Your task to perform on an android device: turn off javascript in the chrome app Image 0: 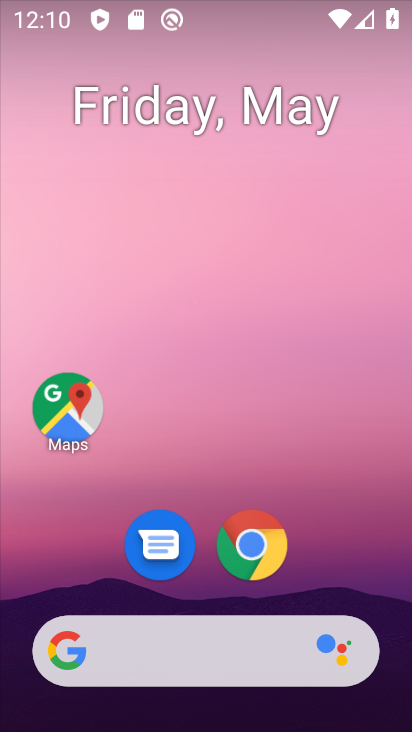
Step 0: click (255, 549)
Your task to perform on an android device: turn off javascript in the chrome app Image 1: 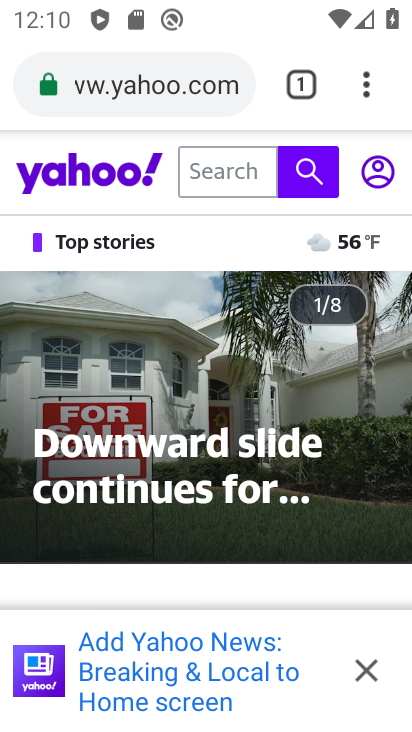
Step 1: click (366, 75)
Your task to perform on an android device: turn off javascript in the chrome app Image 2: 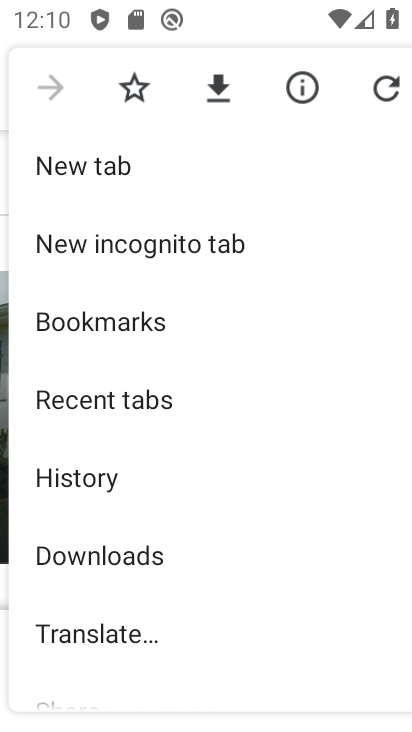
Step 2: drag from (227, 625) to (218, 233)
Your task to perform on an android device: turn off javascript in the chrome app Image 3: 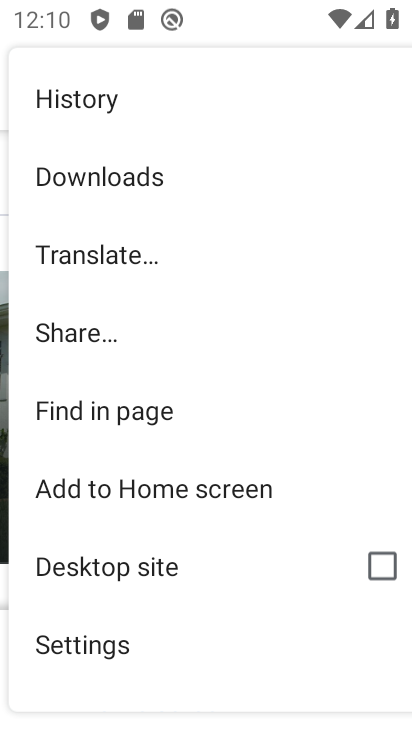
Step 3: click (123, 651)
Your task to perform on an android device: turn off javascript in the chrome app Image 4: 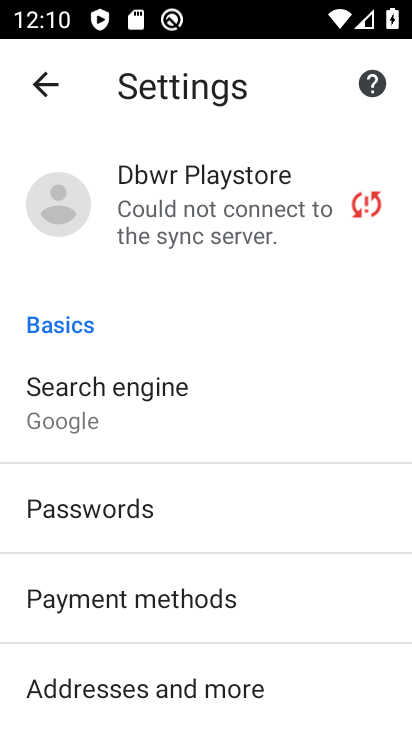
Step 4: drag from (224, 619) to (239, 258)
Your task to perform on an android device: turn off javascript in the chrome app Image 5: 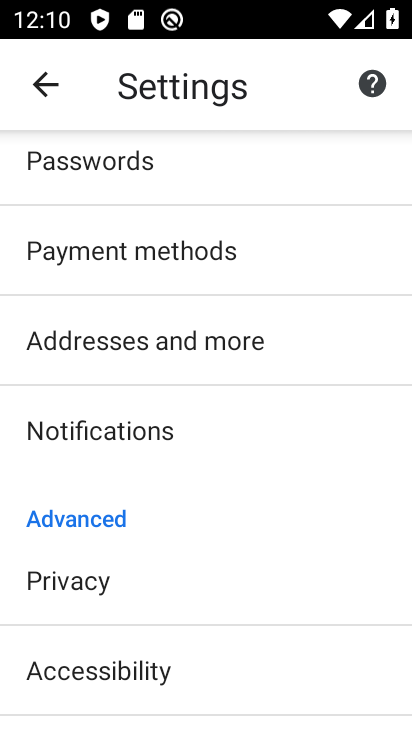
Step 5: drag from (239, 627) to (261, 307)
Your task to perform on an android device: turn off javascript in the chrome app Image 6: 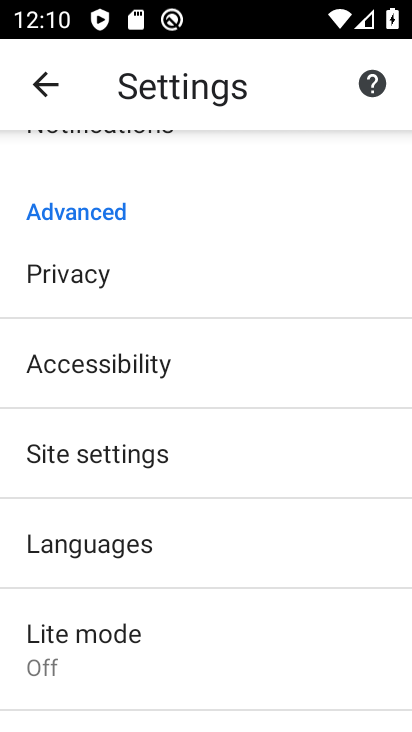
Step 6: click (122, 459)
Your task to perform on an android device: turn off javascript in the chrome app Image 7: 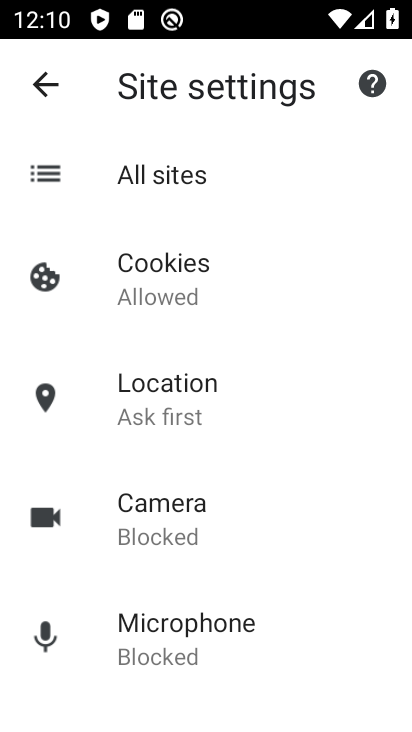
Step 7: drag from (247, 600) to (254, 274)
Your task to perform on an android device: turn off javascript in the chrome app Image 8: 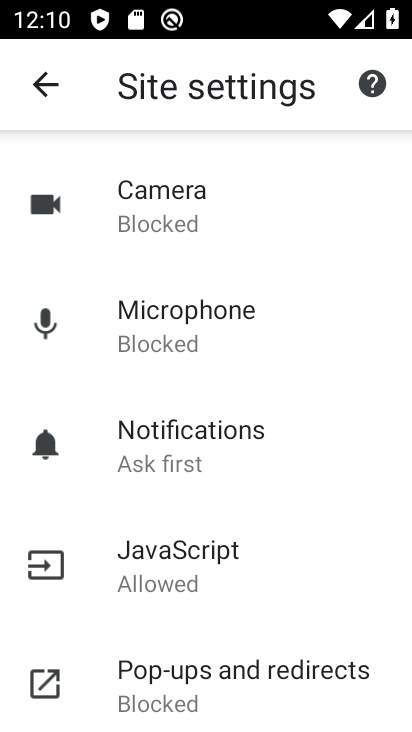
Step 8: click (214, 585)
Your task to perform on an android device: turn off javascript in the chrome app Image 9: 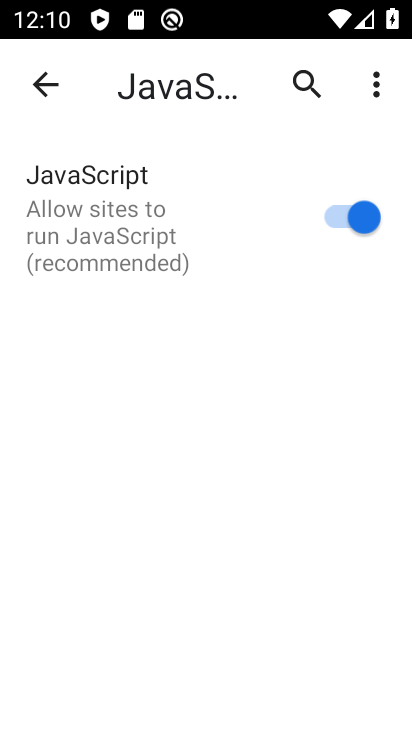
Step 9: click (332, 219)
Your task to perform on an android device: turn off javascript in the chrome app Image 10: 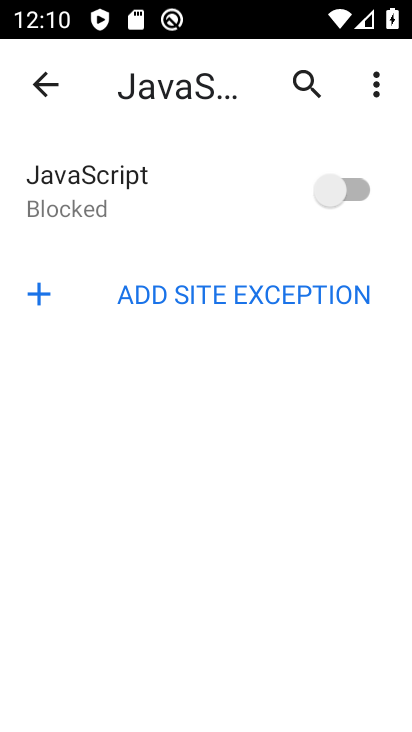
Step 10: task complete